Your task to perform on an android device: turn on the 12-hour format for clock Image 0: 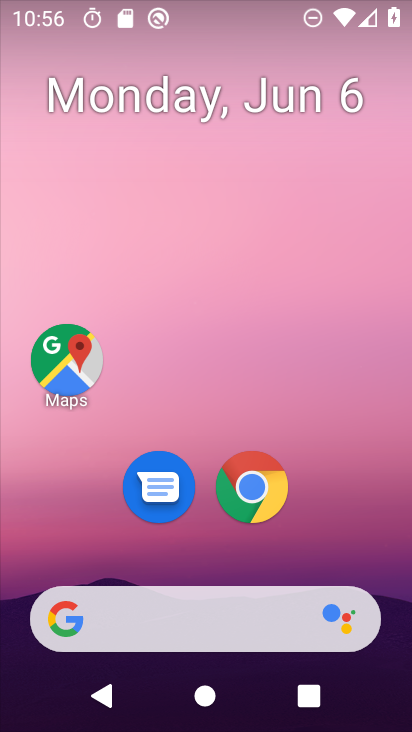
Step 0: drag from (391, 620) to (284, 27)
Your task to perform on an android device: turn on the 12-hour format for clock Image 1: 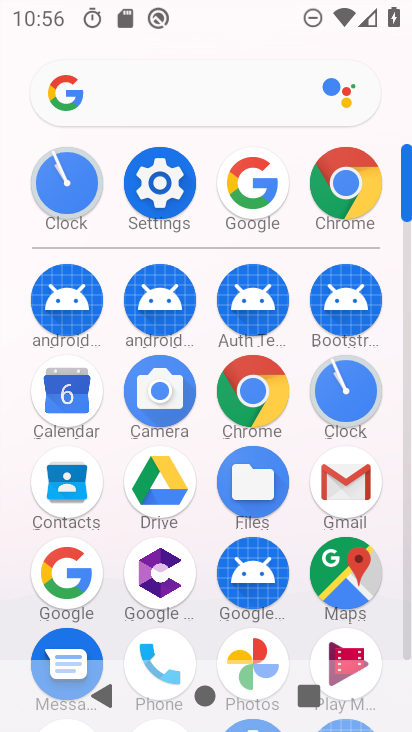
Step 1: click (345, 402)
Your task to perform on an android device: turn on the 12-hour format for clock Image 2: 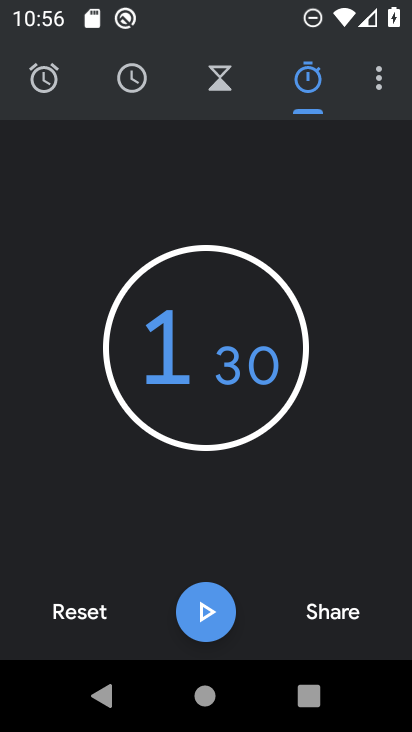
Step 2: click (386, 84)
Your task to perform on an android device: turn on the 12-hour format for clock Image 3: 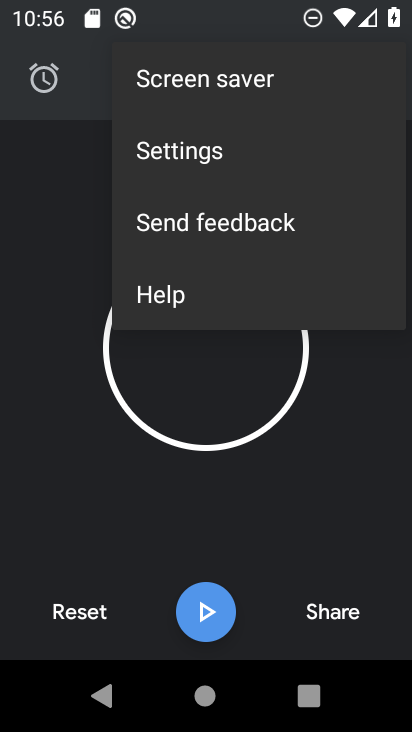
Step 3: click (200, 176)
Your task to perform on an android device: turn on the 12-hour format for clock Image 4: 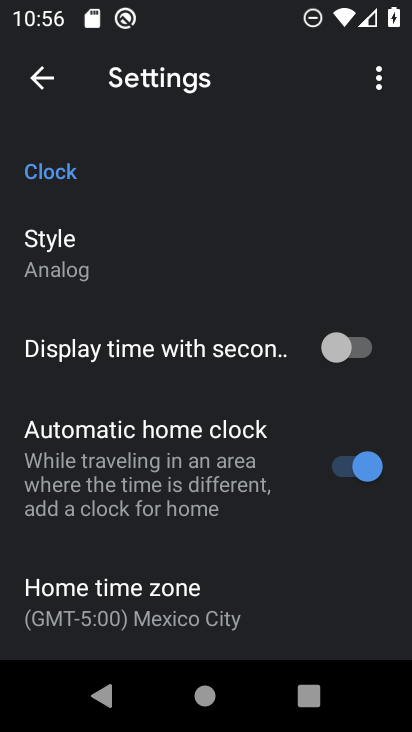
Step 4: drag from (168, 599) to (182, 186)
Your task to perform on an android device: turn on the 12-hour format for clock Image 5: 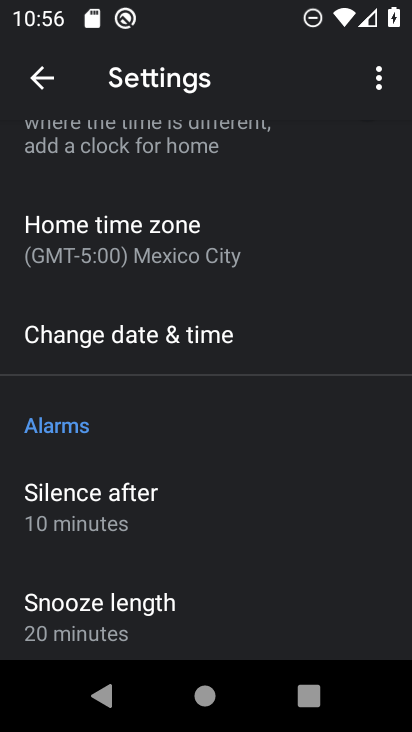
Step 5: click (196, 346)
Your task to perform on an android device: turn on the 12-hour format for clock Image 6: 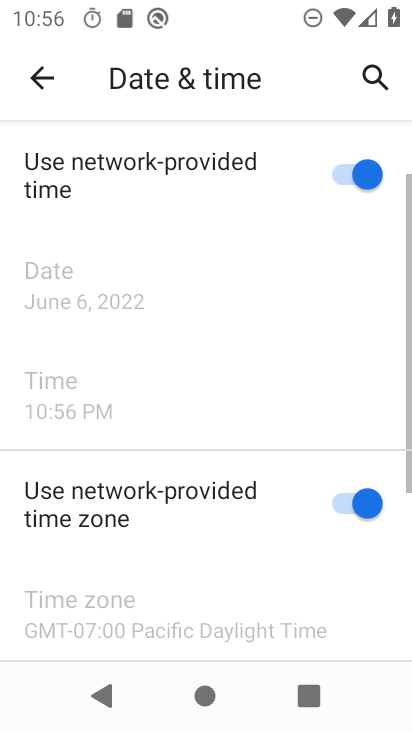
Step 6: task complete